Your task to perform on an android device: Open network settings Image 0: 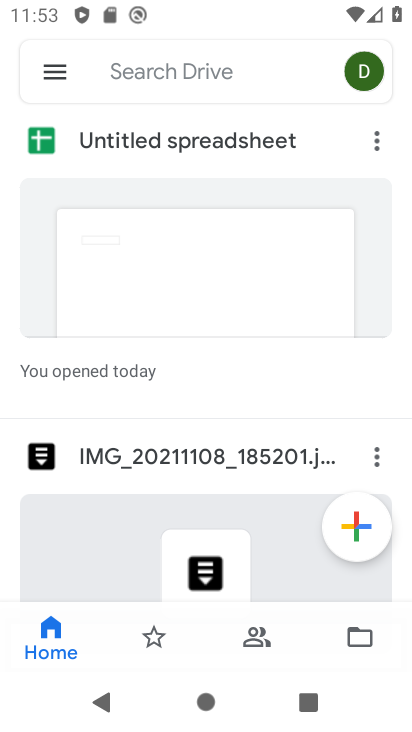
Step 0: press home button
Your task to perform on an android device: Open network settings Image 1: 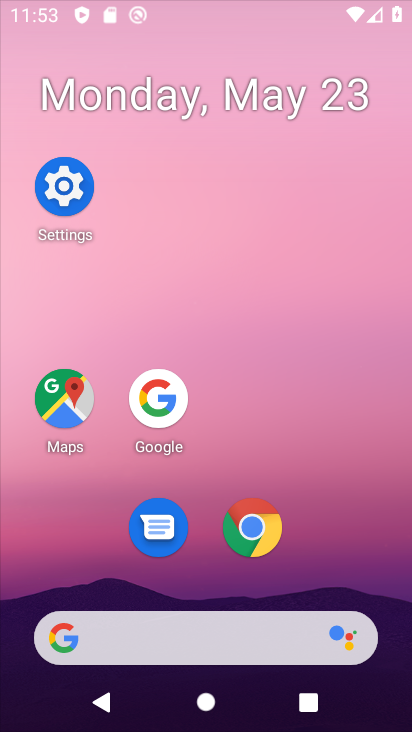
Step 1: click (69, 218)
Your task to perform on an android device: Open network settings Image 2: 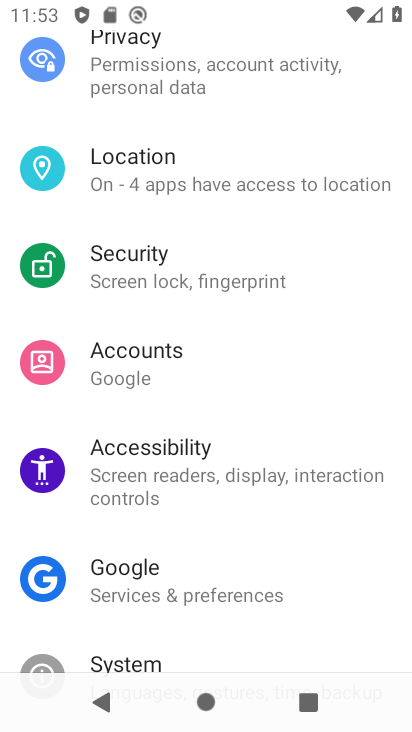
Step 2: drag from (256, 156) to (266, 483)
Your task to perform on an android device: Open network settings Image 3: 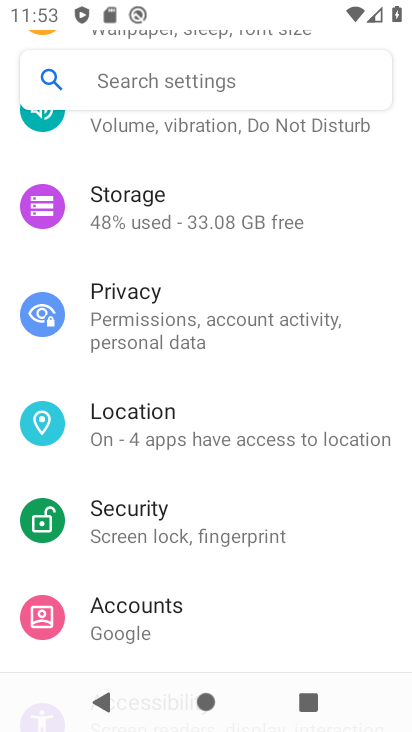
Step 3: drag from (238, 186) to (248, 599)
Your task to perform on an android device: Open network settings Image 4: 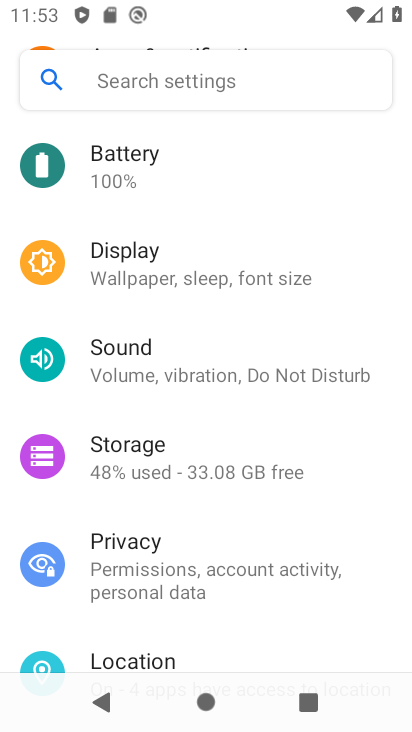
Step 4: drag from (241, 189) to (280, 574)
Your task to perform on an android device: Open network settings Image 5: 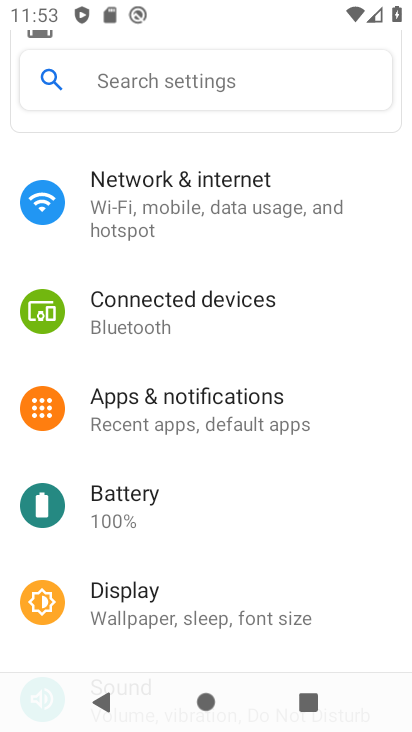
Step 5: click (252, 205)
Your task to perform on an android device: Open network settings Image 6: 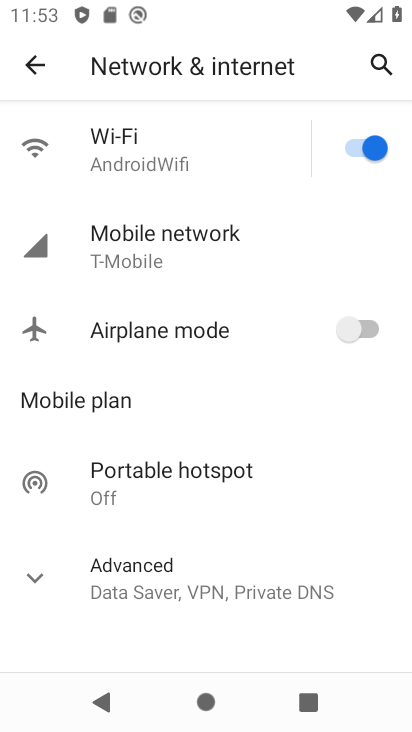
Step 6: click (237, 226)
Your task to perform on an android device: Open network settings Image 7: 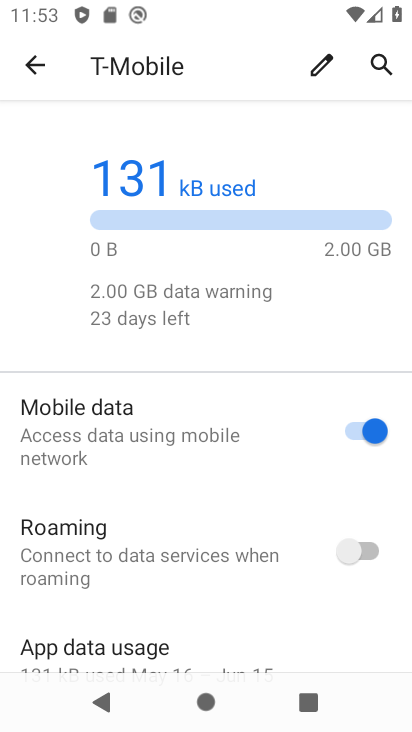
Step 7: task complete